Your task to perform on an android device: delete a single message in the gmail app Image 0: 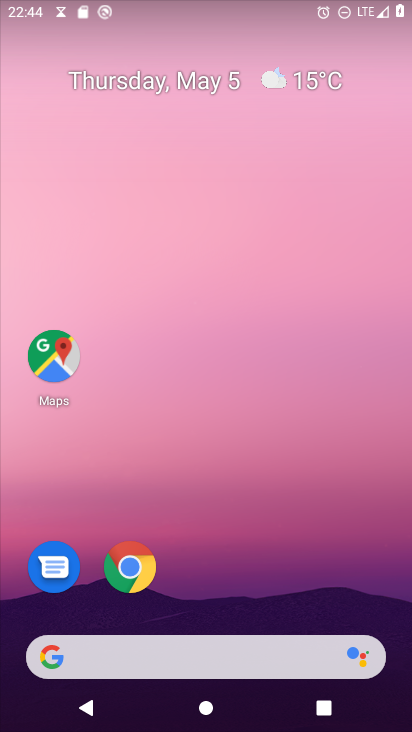
Step 0: drag from (221, 731) to (234, 107)
Your task to perform on an android device: delete a single message in the gmail app Image 1: 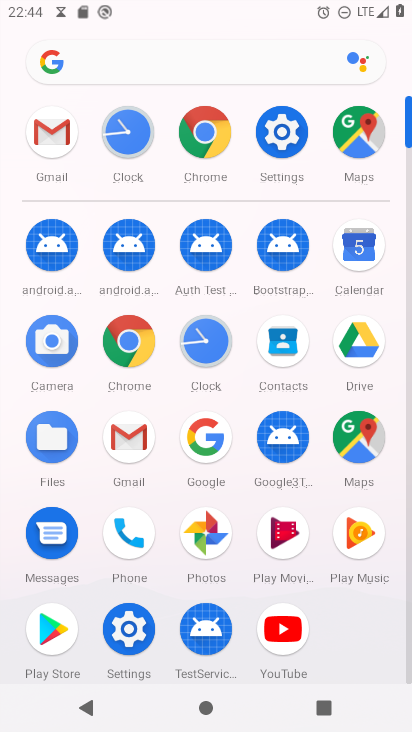
Step 1: click (132, 438)
Your task to perform on an android device: delete a single message in the gmail app Image 2: 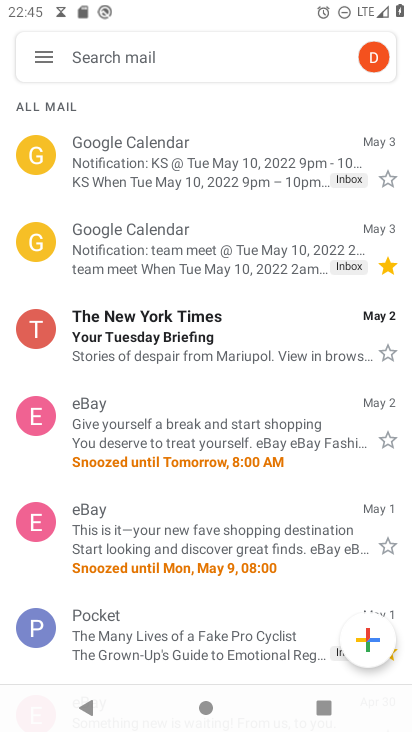
Step 2: click (185, 173)
Your task to perform on an android device: delete a single message in the gmail app Image 3: 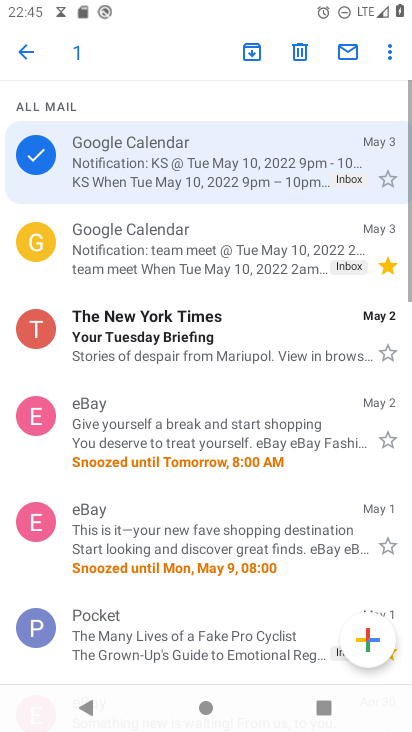
Step 3: click (304, 52)
Your task to perform on an android device: delete a single message in the gmail app Image 4: 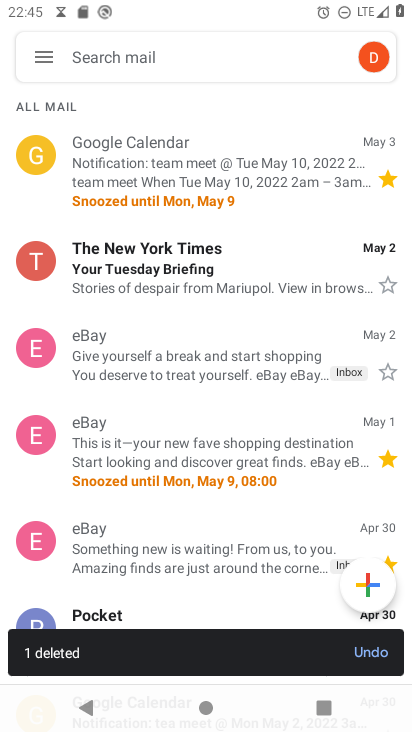
Step 4: task complete